Your task to perform on an android device: open app "Reddit" (install if not already installed) and go to login screen Image 0: 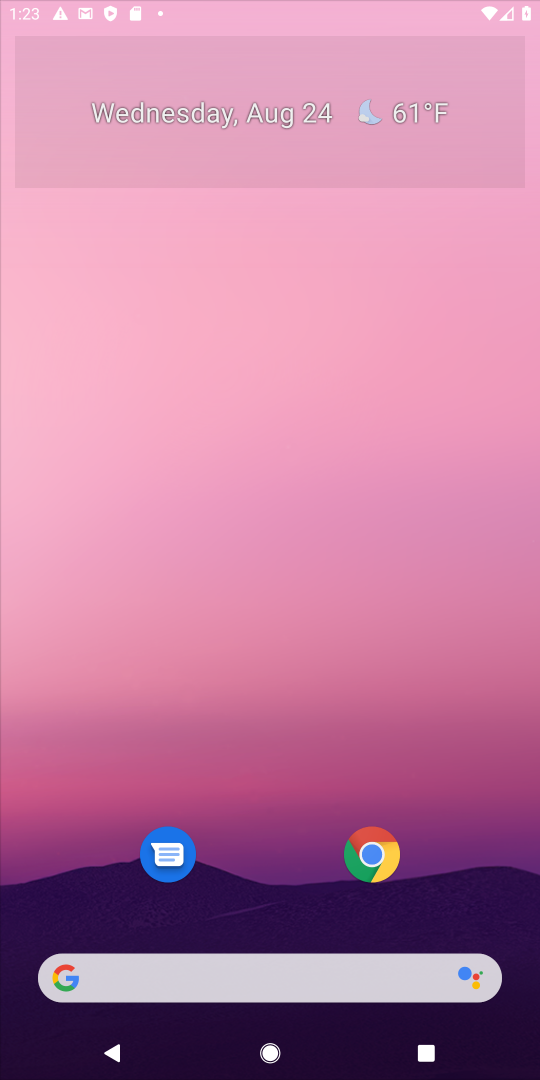
Step 0: press home button
Your task to perform on an android device: open app "Reddit" (install if not already installed) and go to login screen Image 1: 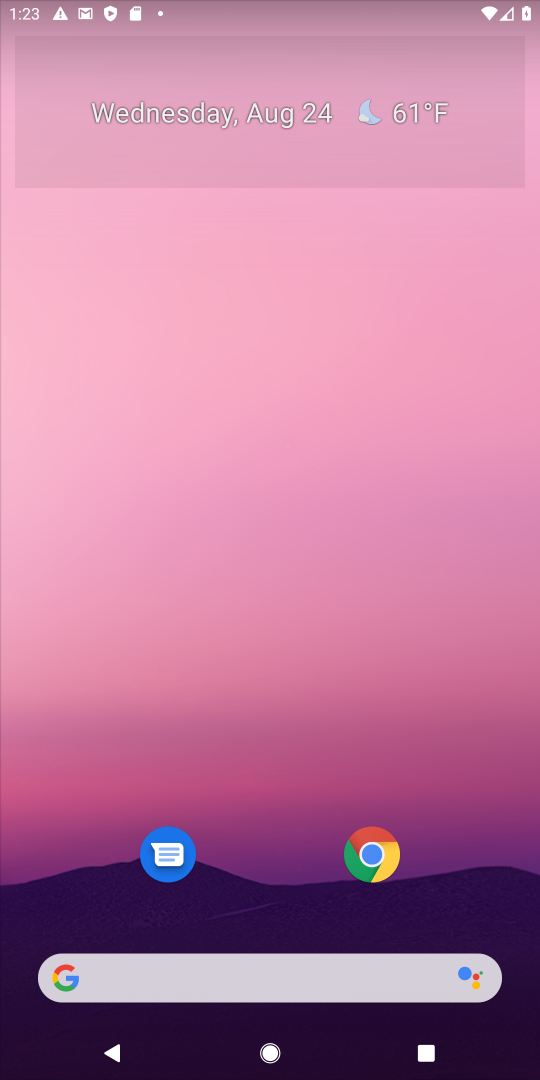
Step 1: drag from (465, 845) to (478, 137)
Your task to perform on an android device: open app "Reddit" (install if not already installed) and go to login screen Image 2: 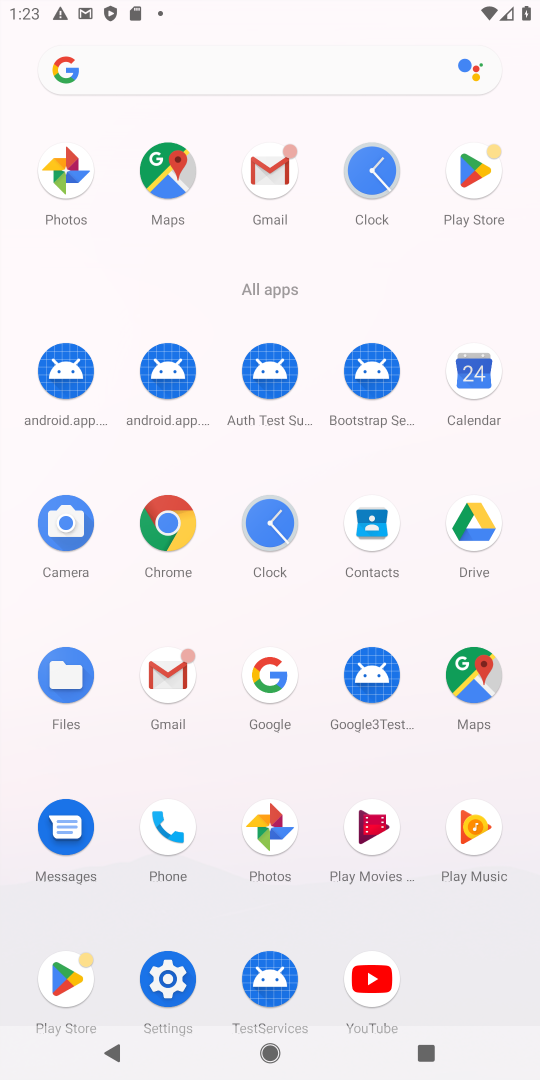
Step 2: click (478, 159)
Your task to perform on an android device: open app "Reddit" (install if not already installed) and go to login screen Image 3: 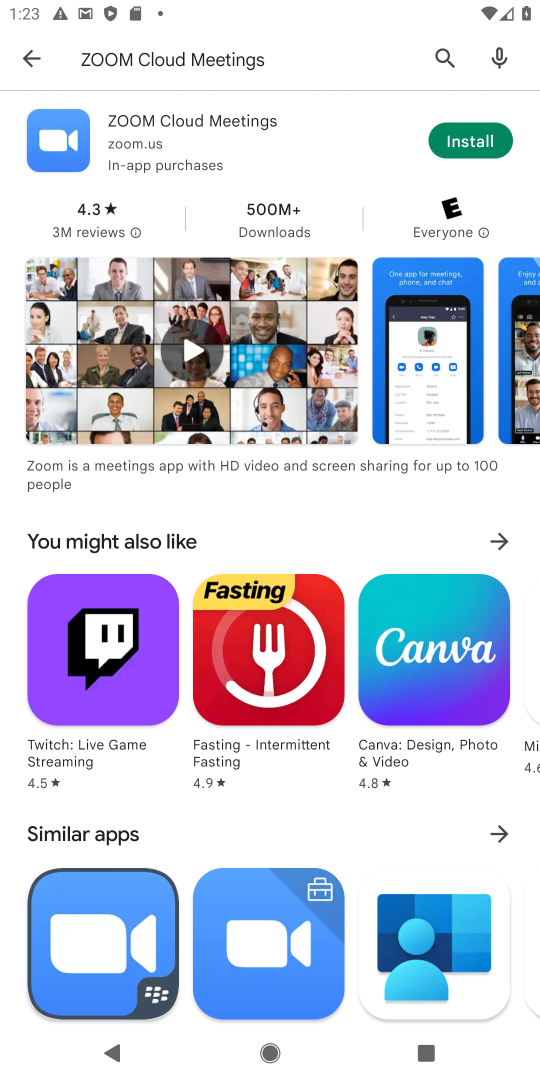
Step 3: press back button
Your task to perform on an android device: open app "Reddit" (install if not already installed) and go to login screen Image 4: 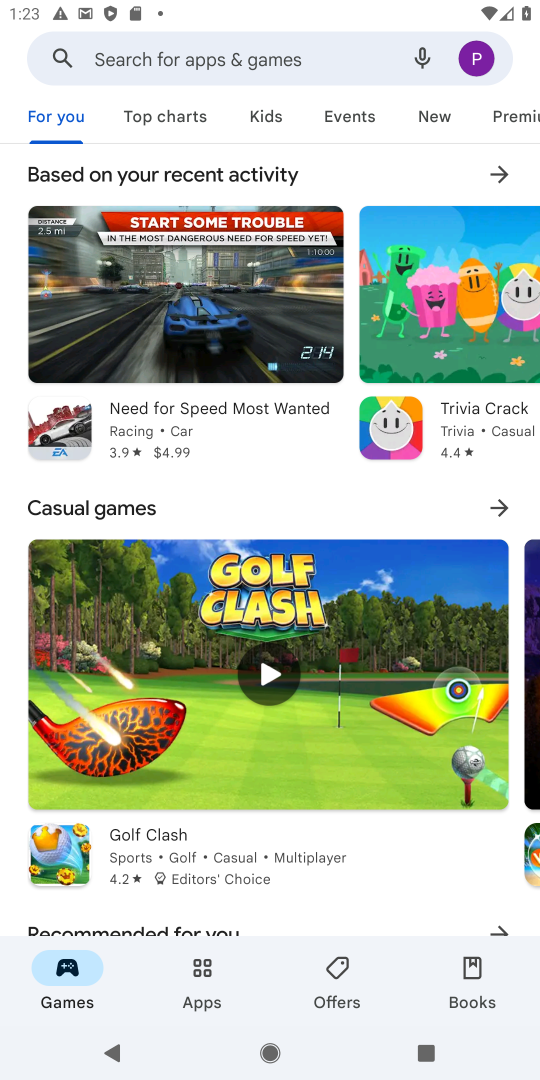
Step 4: click (294, 62)
Your task to perform on an android device: open app "Reddit" (install if not already installed) and go to login screen Image 5: 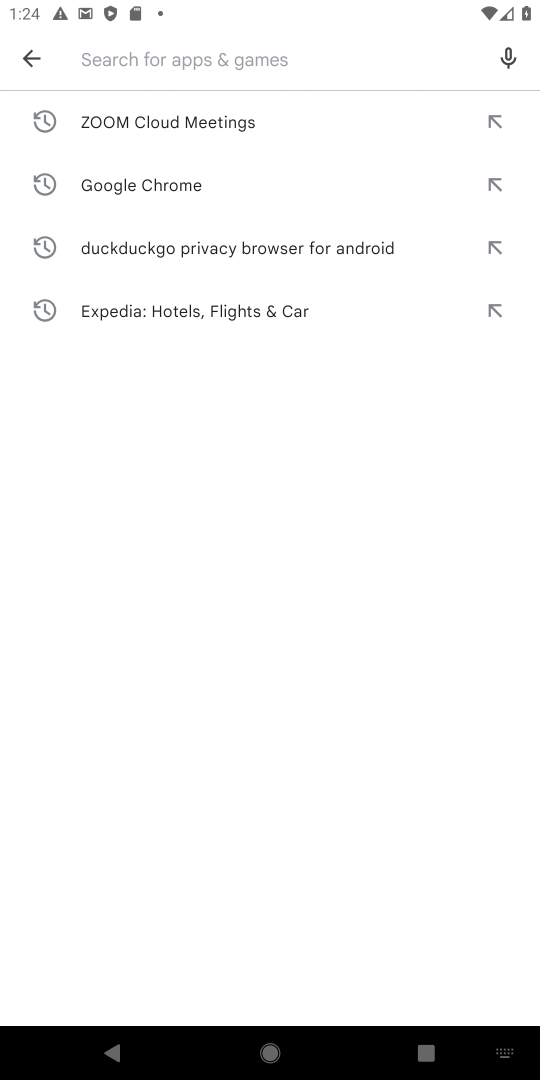
Step 5: press enter
Your task to perform on an android device: open app "Reddit" (install if not already installed) and go to login screen Image 6: 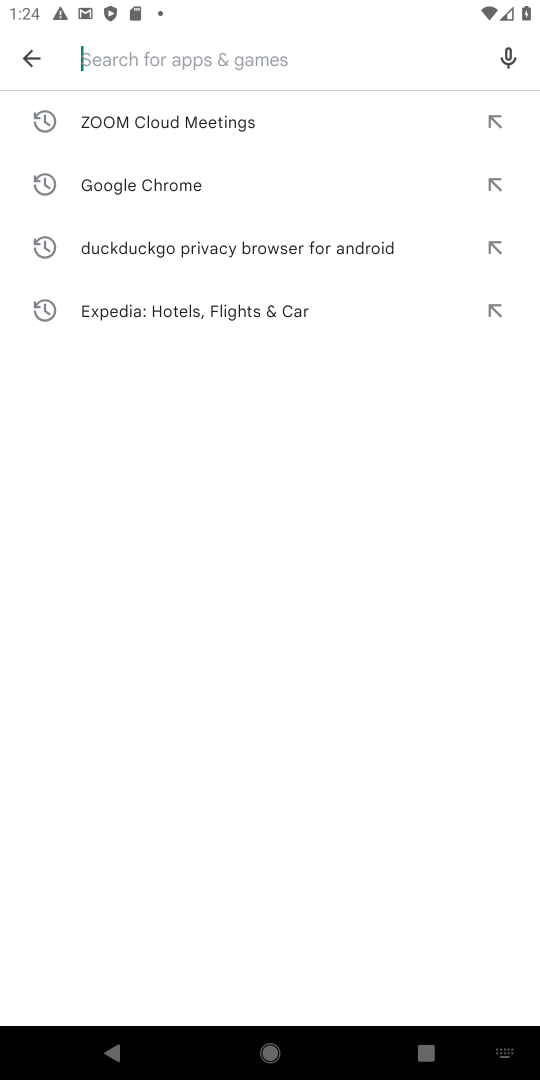
Step 6: type "reddit"
Your task to perform on an android device: open app "Reddit" (install if not already installed) and go to login screen Image 7: 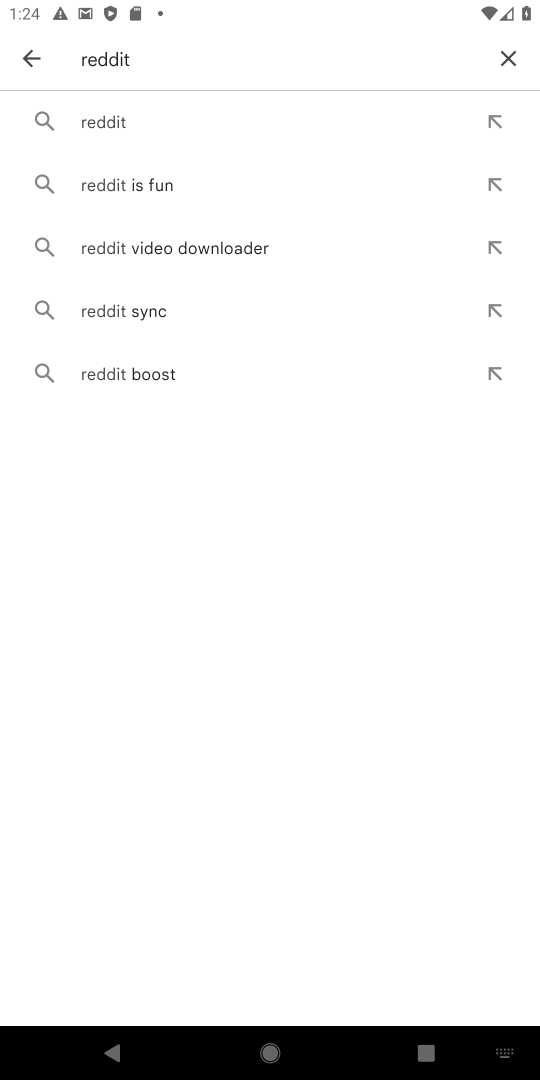
Step 7: click (125, 118)
Your task to perform on an android device: open app "Reddit" (install if not already installed) and go to login screen Image 8: 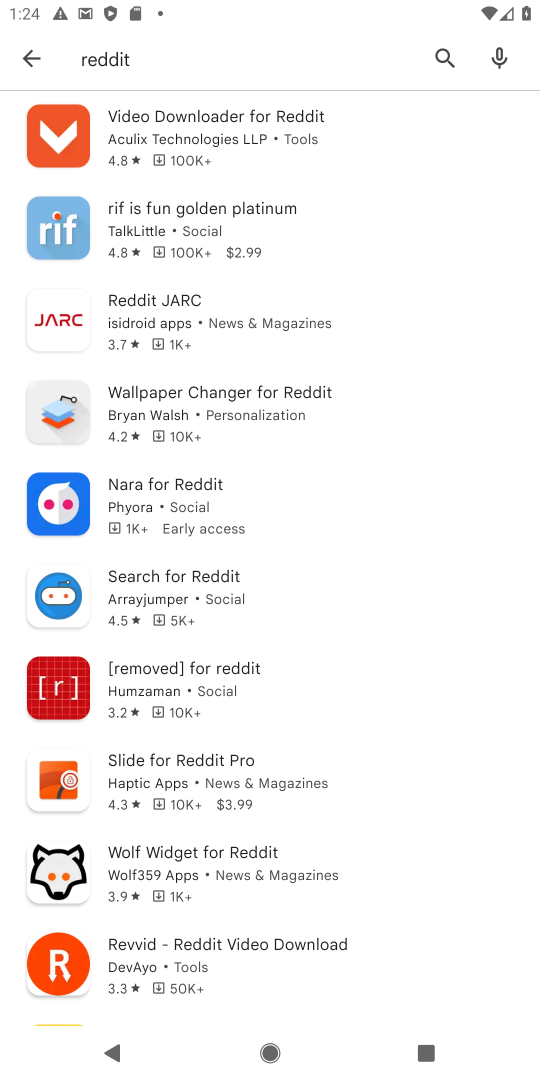
Step 8: task complete